Your task to perform on an android device: open wifi settings Image 0: 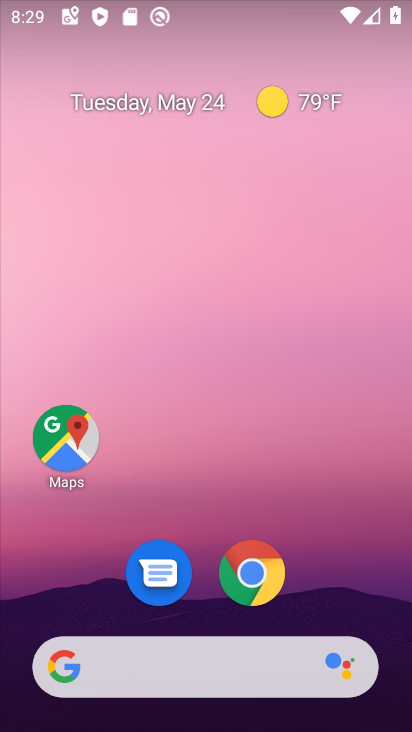
Step 0: drag from (326, 711) to (68, 63)
Your task to perform on an android device: open wifi settings Image 1: 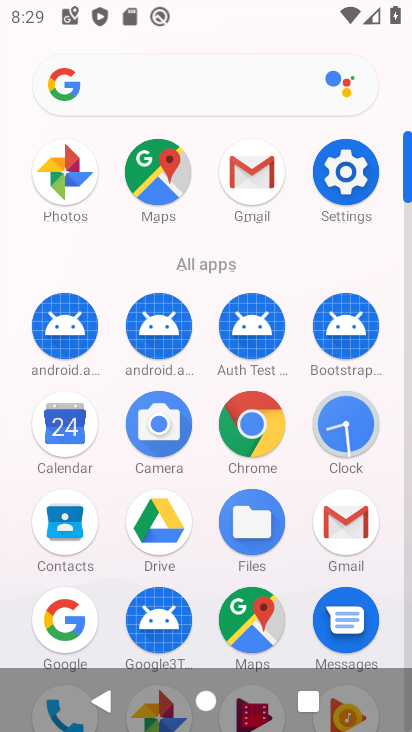
Step 1: click (344, 147)
Your task to perform on an android device: open wifi settings Image 2: 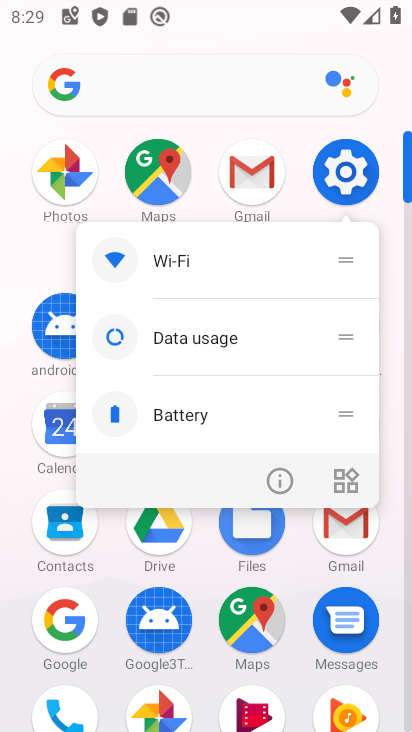
Step 2: click (186, 258)
Your task to perform on an android device: open wifi settings Image 3: 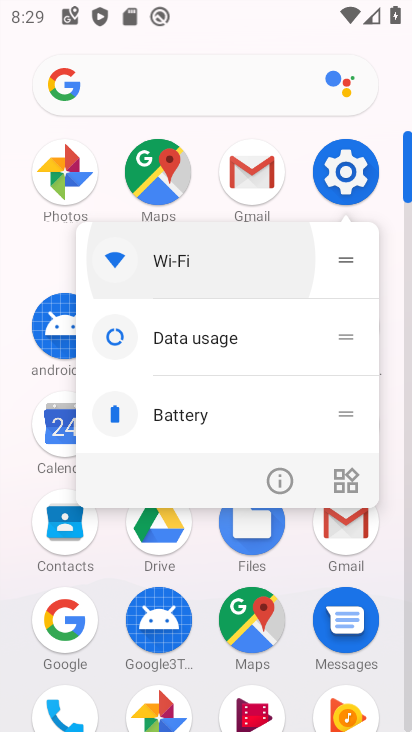
Step 3: click (184, 257)
Your task to perform on an android device: open wifi settings Image 4: 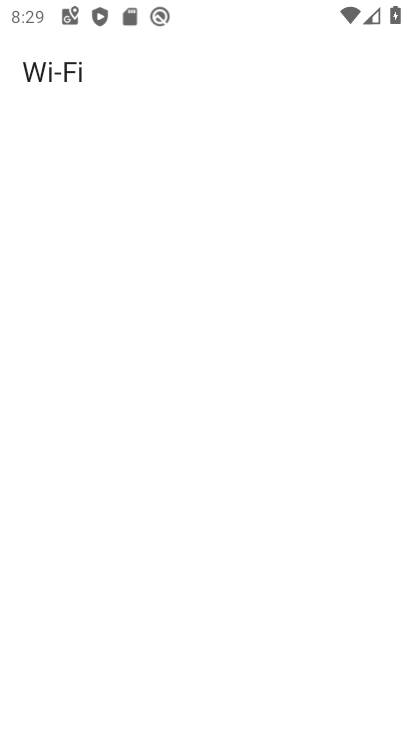
Step 4: click (184, 256)
Your task to perform on an android device: open wifi settings Image 5: 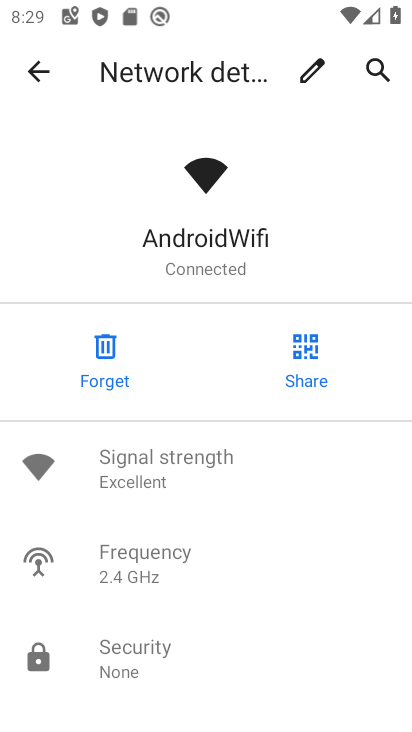
Step 5: click (33, 81)
Your task to perform on an android device: open wifi settings Image 6: 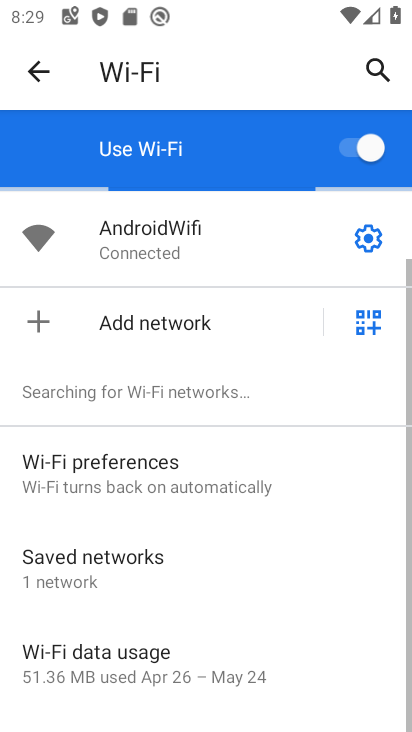
Step 6: task complete